Your task to perform on an android device: Add razer deathadder to the cart on amazon Image 0: 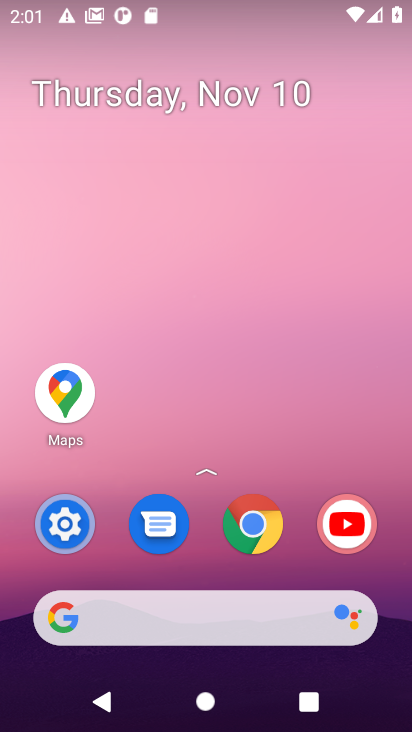
Step 0: click (250, 537)
Your task to perform on an android device: Add razer deathadder to the cart on amazon Image 1: 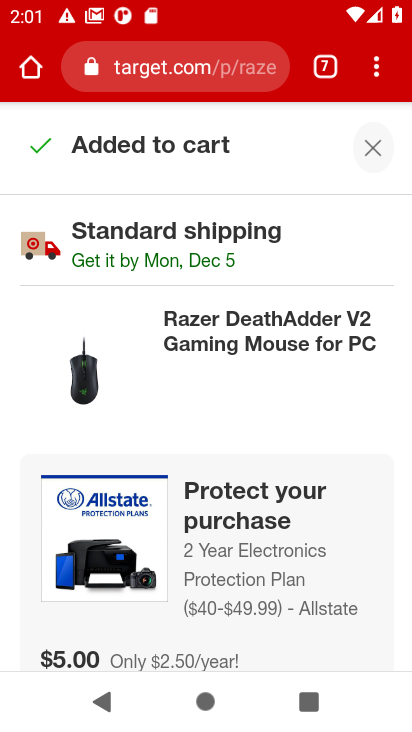
Step 1: click (318, 63)
Your task to perform on an android device: Add razer deathadder to the cart on amazon Image 2: 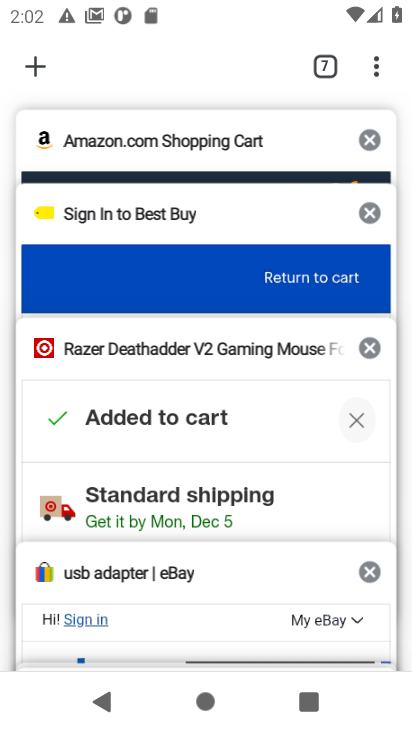
Step 2: click (206, 136)
Your task to perform on an android device: Add razer deathadder to the cart on amazon Image 3: 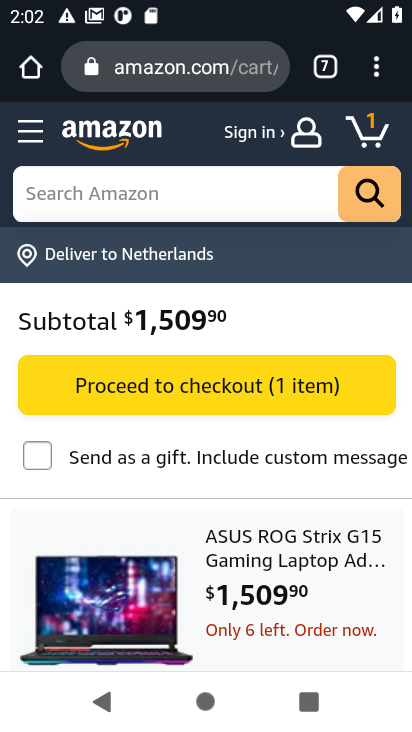
Step 3: click (146, 196)
Your task to perform on an android device: Add razer deathadder to the cart on amazon Image 4: 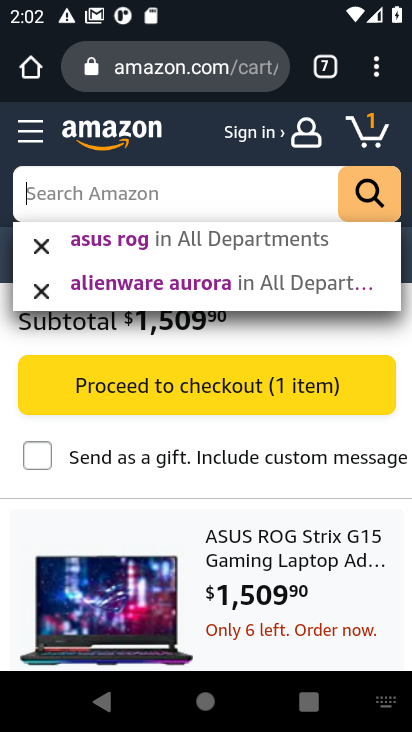
Step 4: type "razer deathadder"
Your task to perform on an android device: Add razer deathadder to the cart on amazon Image 5: 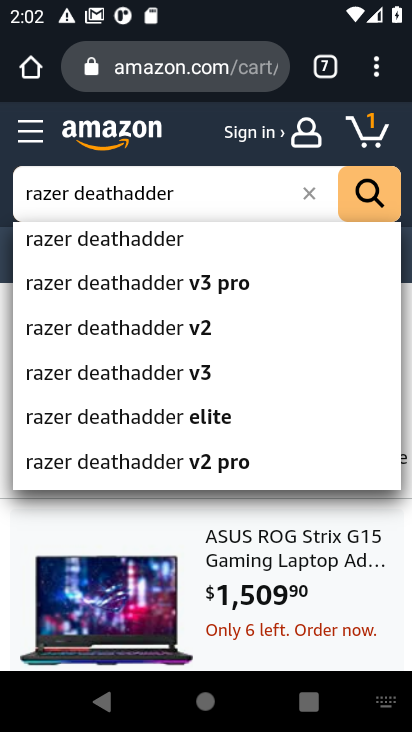
Step 5: click (154, 231)
Your task to perform on an android device: Add razer deathadder to the cart on amazon Image 6: 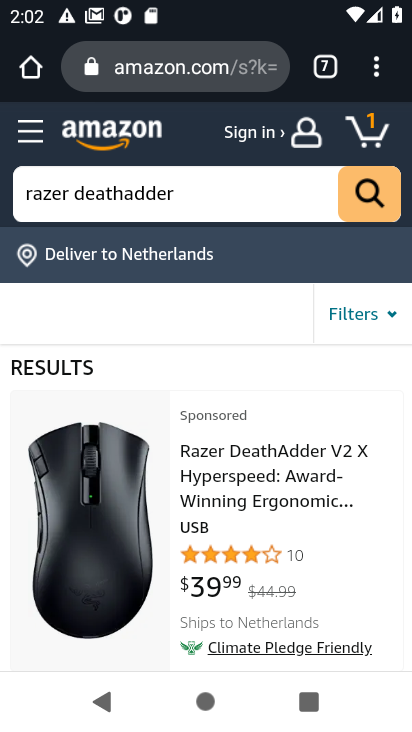
Step 6: click (252, 466)
Your task to perform on an android device: Add razer deathadder to the cart on amazon Image 7: 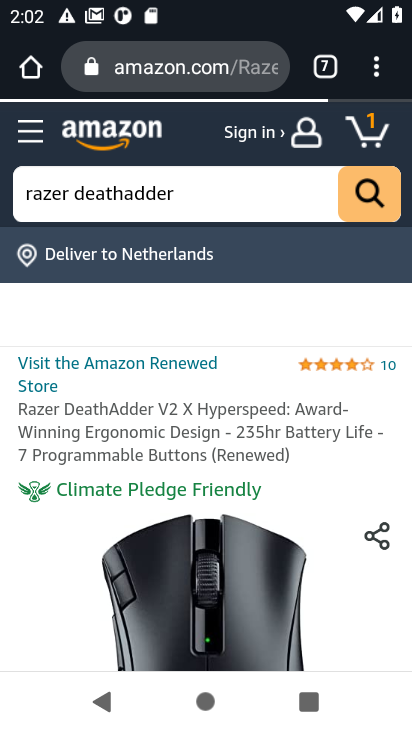
Step 7: drag from (356, 629) to (349, 281)
Your task to perform on an android device: Add razer deathadder to the cart on amazon Image 8: 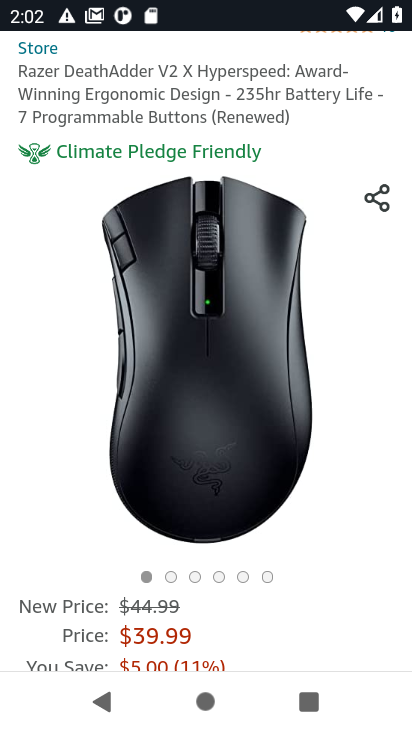
Step 8: drag from (284, 612) to (319, 465)
Your task to perform on an android device: Add razer deathadder to the cart on amazon Image 9: 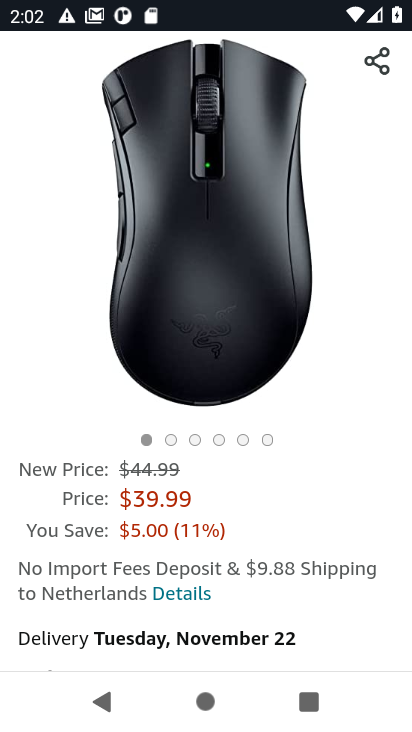
Step 9: drag from (269, 602) to (292, 278)
Your task to perform on an android device: Add razer deathadder to the cart on amazon Image 10: 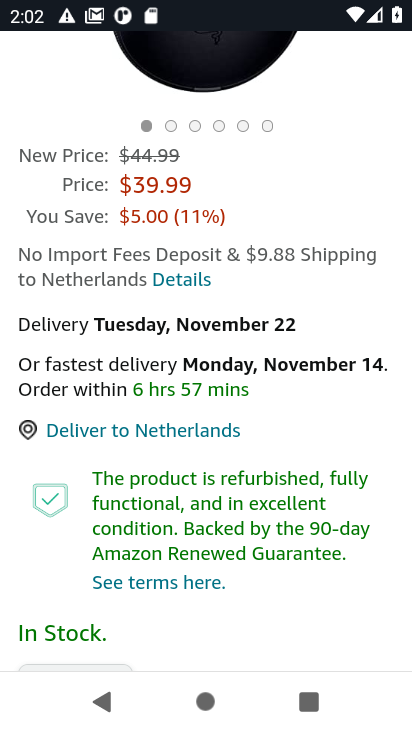
Step 10: drag from (196, 600) to (214, 129)
Your task to perform on an android device: Add razer deathadder to the cart on amazon Image 11: 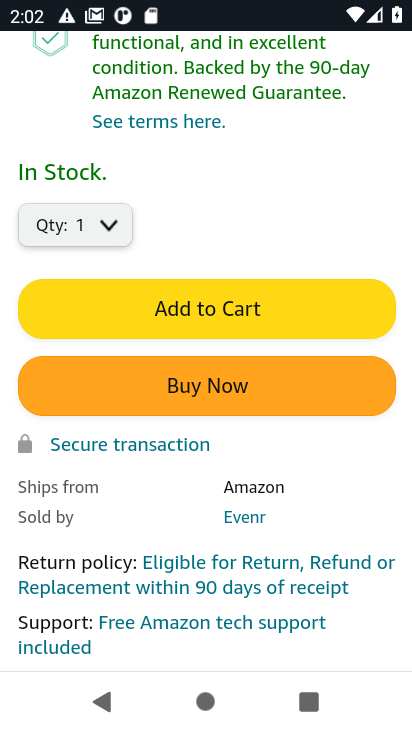
Step 11: click (172, 319)
Your task to perform on an android device: Add razer deathadder to the cart on amazon Image 12: 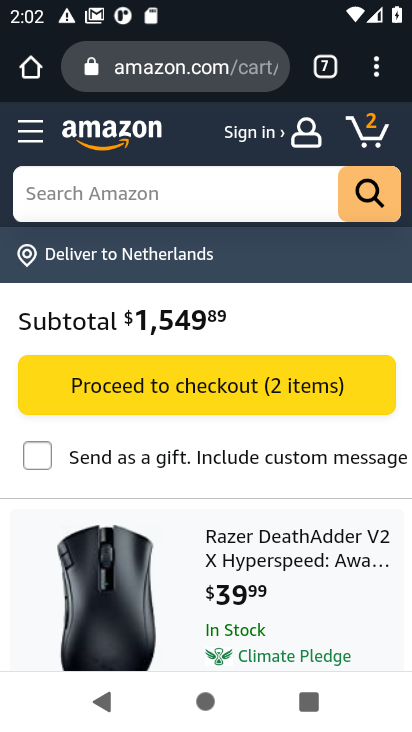
Step 12: click (172, 321)
Your task to perform on an android device: Add razer deathadder to the cart on amazon Image 13: 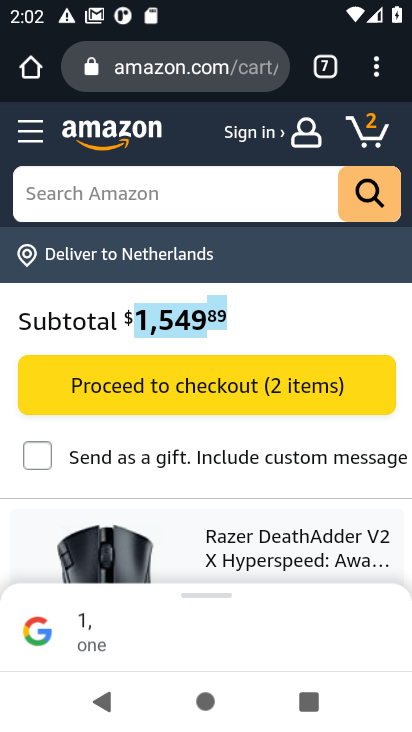
Step 13: task complete